Your task to perform on an android device: Go to wifi settings Image 0: 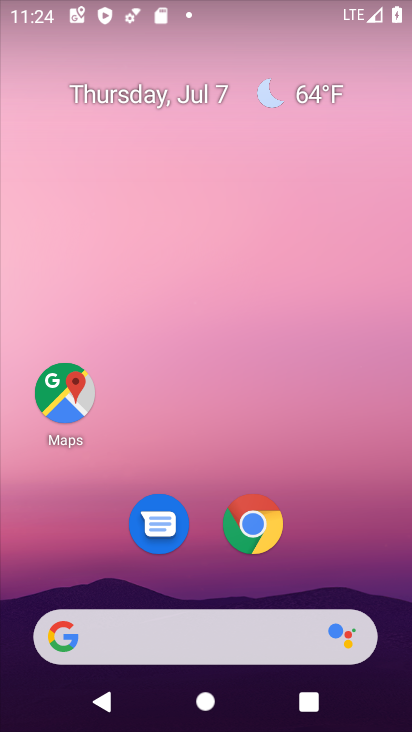
Step 0: drag from (218, 463) to (268, 19)
Your task to perform on an android device: Go to wifi settings Image 1: 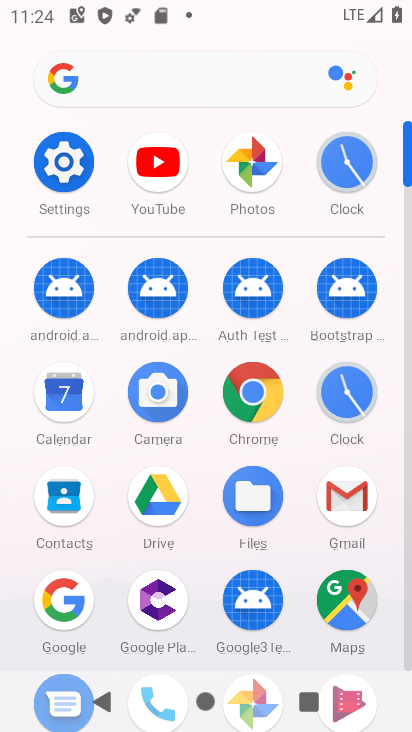
Step 1: click (63, 157)
Your task to perform on an android device: Go to wifi settings Image 2: 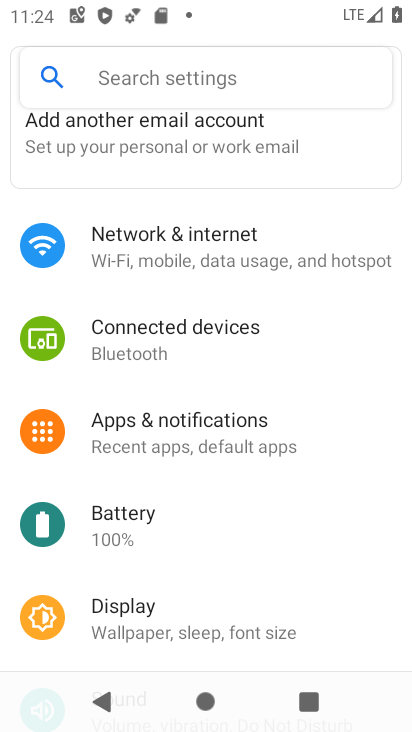
Step 2: click (231, 249)
Your task to perform on an android device: Go to wifi settings Image 3: 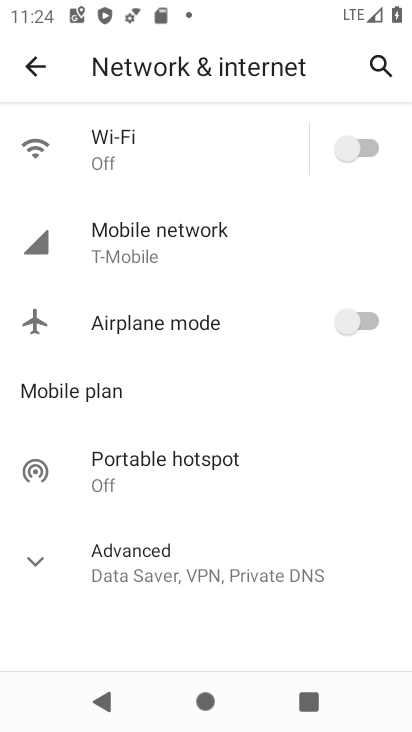
Step 3: click (129, 149)
Your task to perform on an android device: Go to wifi settings Image 4: 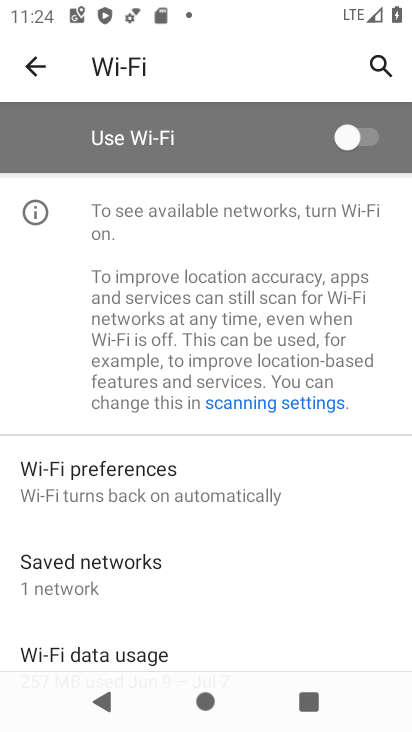
Step 4: task complete